Your task to perform on an android device: turn on location history Image 0: 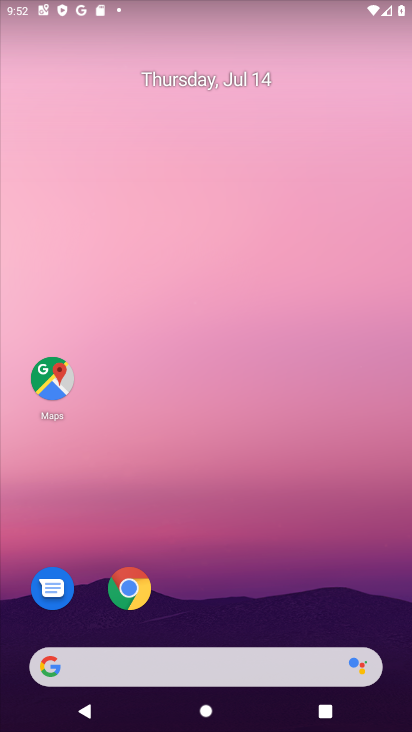
Step 0: click (51, 367)
Your task to perform on an android device: turn on location history Image 1: 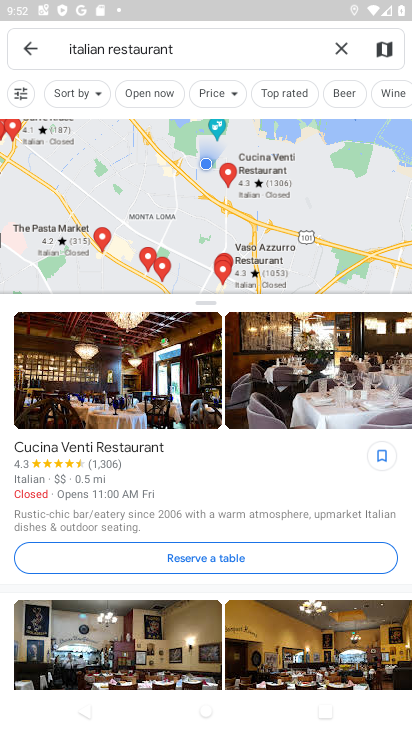
Step 1: click (28, 50)
Your task to perform on an android device: turn on location history Image 2: 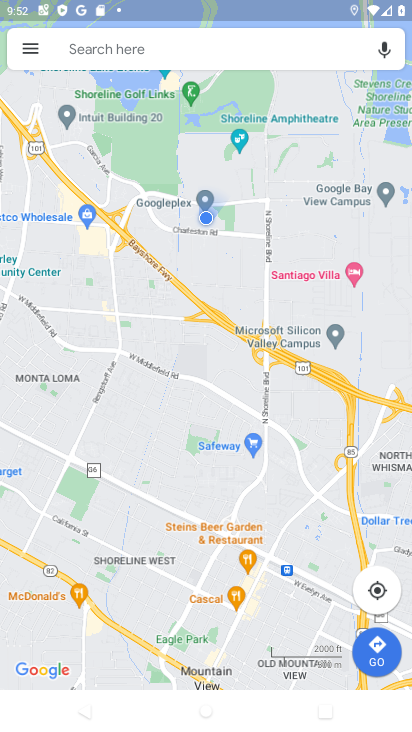
Step 2: click (27, 46)
Your task to perform on an android device: turn on location history Image 3: 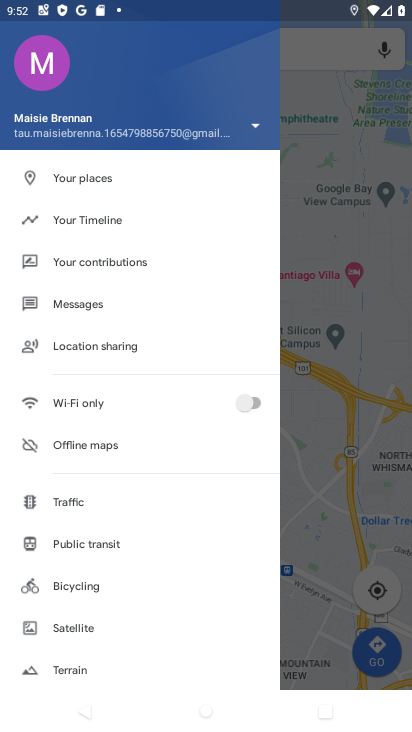
Step 3: click (93, 223)
Your task to perform on an android device: turn on location history Image 4: 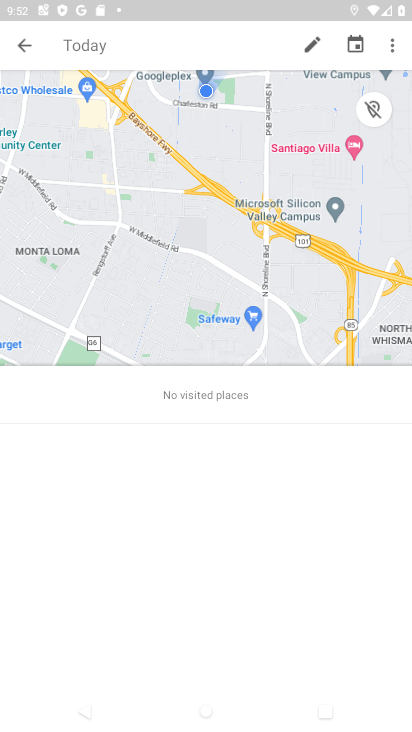
Step 4: click (389, 50)
Your task to perform on an android device: turn on location history Image 5: 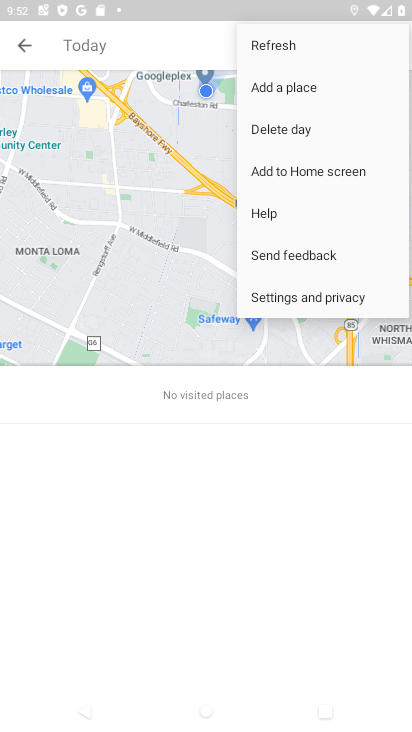
Step 5: click (306, 302)
Your task to perform on an android device: turn on location history Image 6: 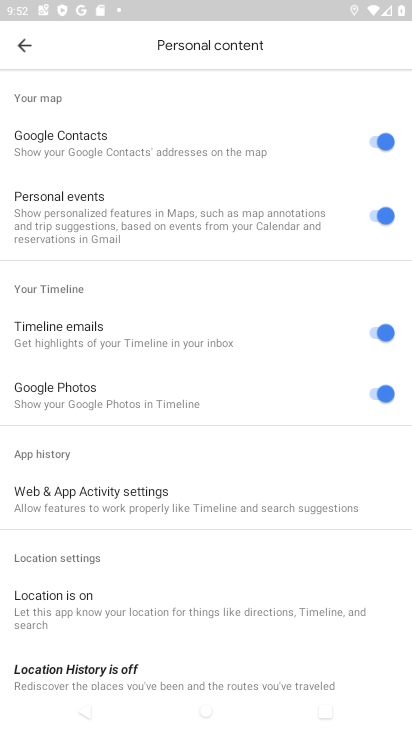
Step 6: drag from (190, 609) to (289, 318)
Your task to perform on an android device: turn on location history Image 7: 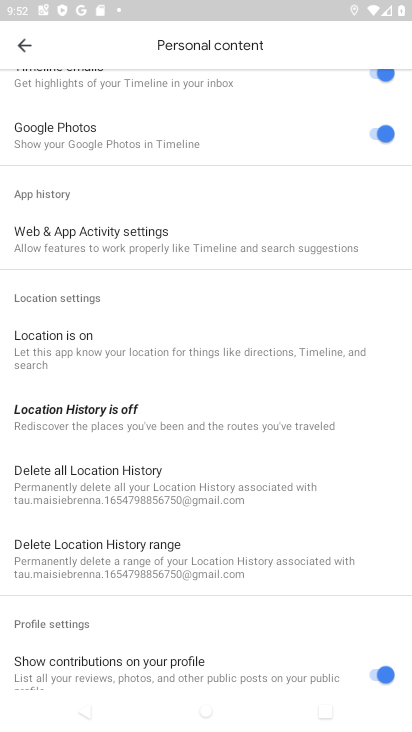
Step 7: click (96, 418)
Your task to perform on an android device: turn on location history Image 8: 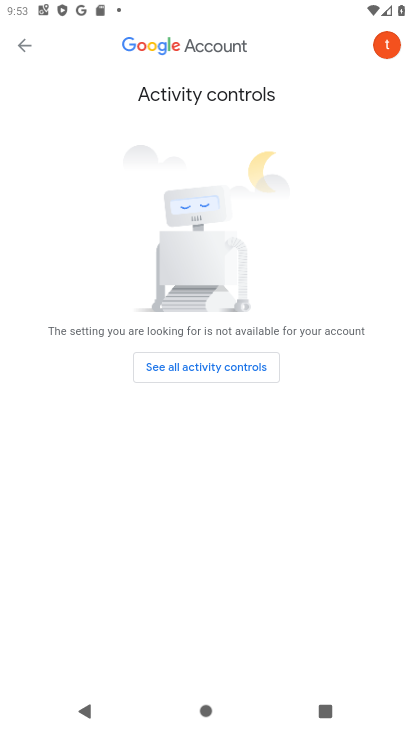
Step 8: click (199, 367)
Your task to perform on an android device: turn on location history Image 9: 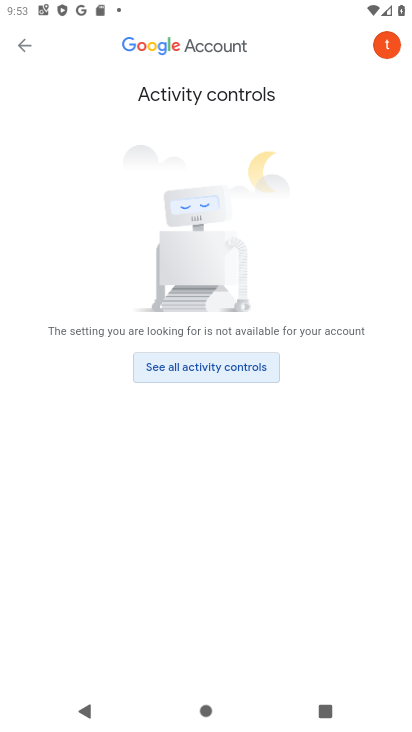
Step 9: click (205, 372)
Your task to perform on an android device: turn on location history Image 10: 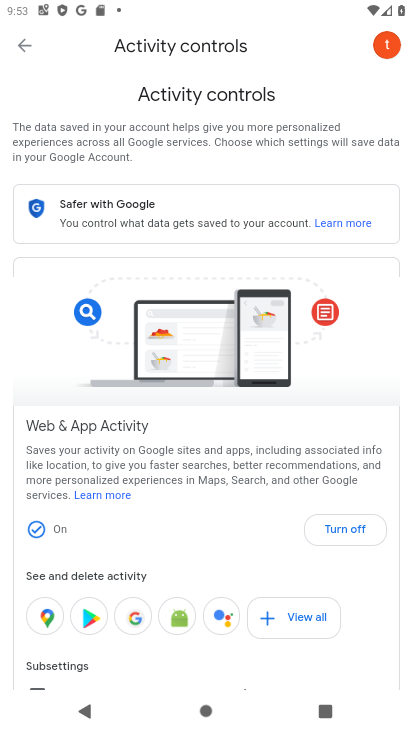
Step 10: task complete